Your task to perform on an android device: turn off location history Image 0: 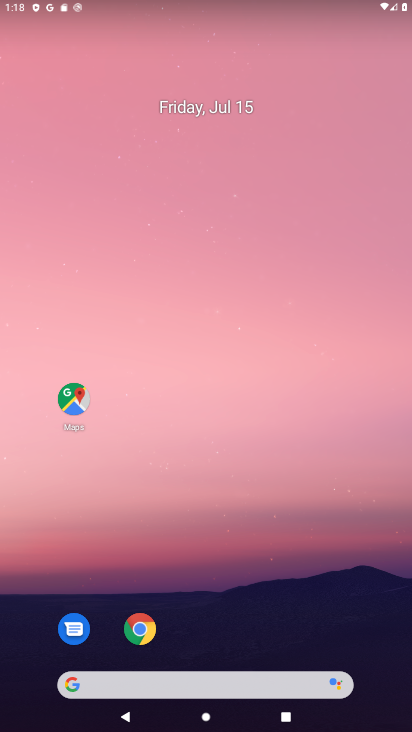
Step 0: drag from (197, 618) to (215, 80)
Your task to perform on an android device: turn off location history Image 1: 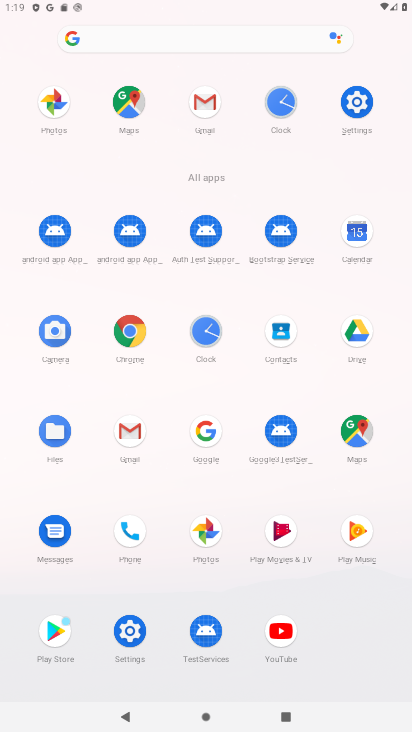
Step 1: click (127, 634)
Your task to perform on an android device: turn off location history Image 2: 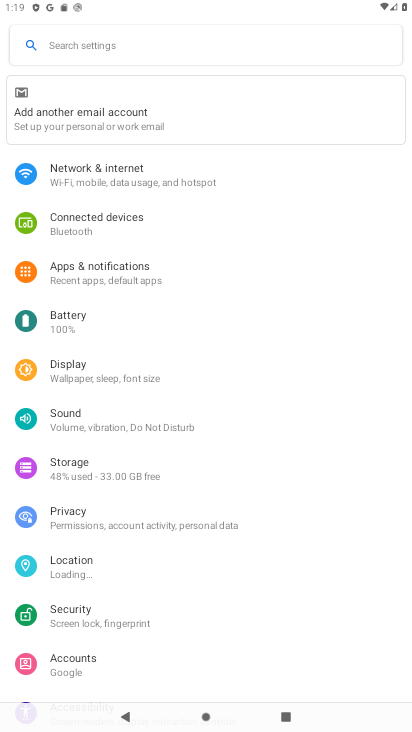
Step 2: click (70, 562)
Your task to perform on an android device: turn off location history Image 3: 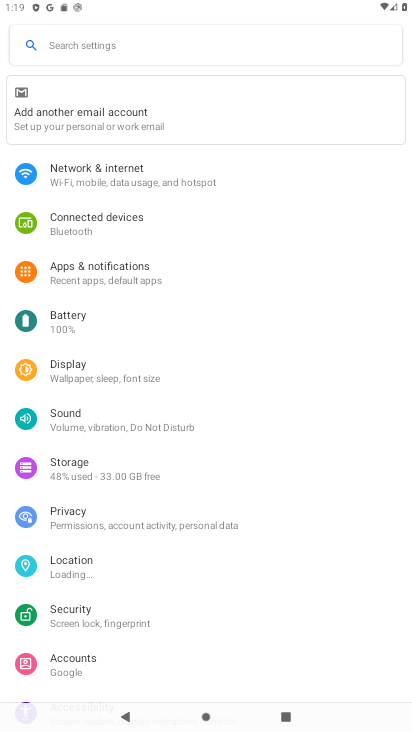
Step 3: click (70, 562)
Your task to perform on an android device: turn off location history Image 4: 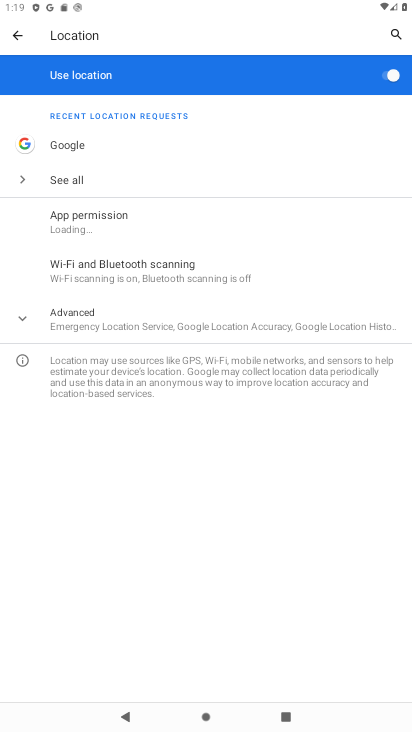
Step 4: click (39, 324)
Your task to perform on an android device: turn off location history Image 5: 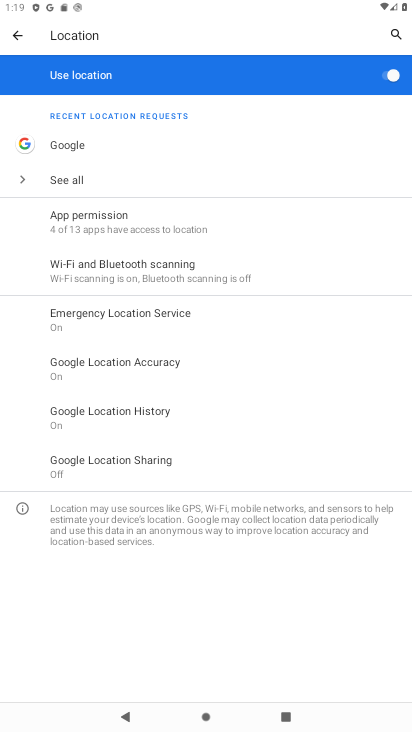
Step 5: click (82, 414)
Your task to perform on an android device: turn off location history Image 6: 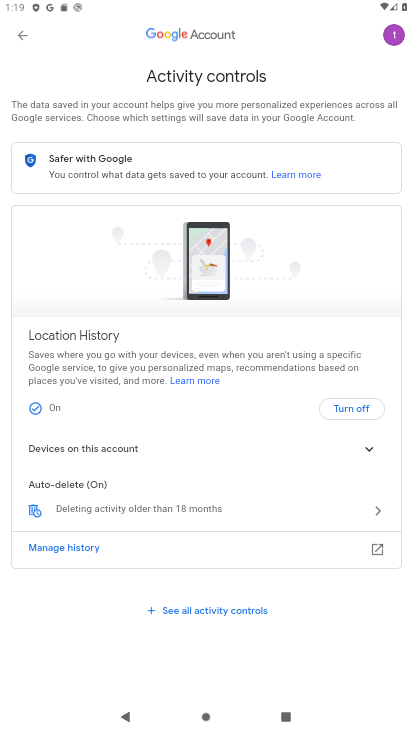
Step 6: task complete